Your task to perform on an android device: visit the assistant section in the google photos Image 0: 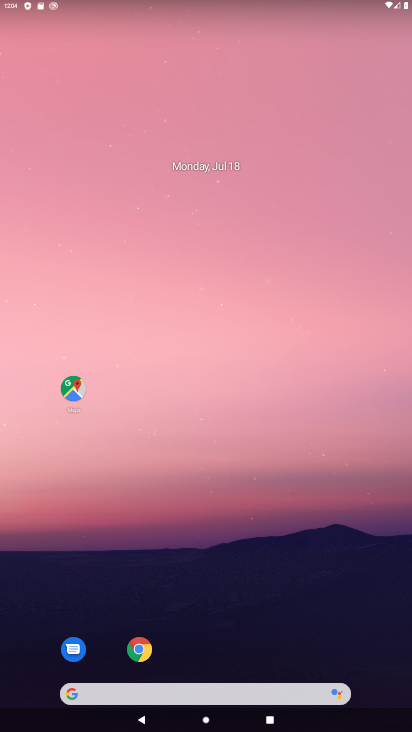
Step 0: drag from (195, 503) to (197, 39)
Your task to perform on an android device: visit the assistant section in the google photos Image 1: 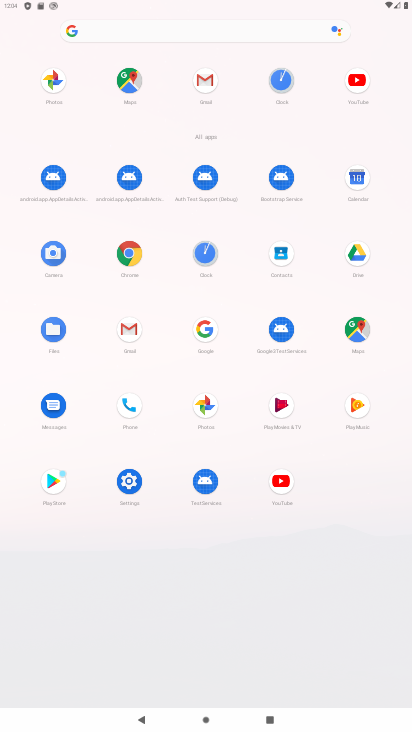
Step 1: click (212, 413)
Your task to perform on an android device: visit the assistant section in the google photos Image 2: 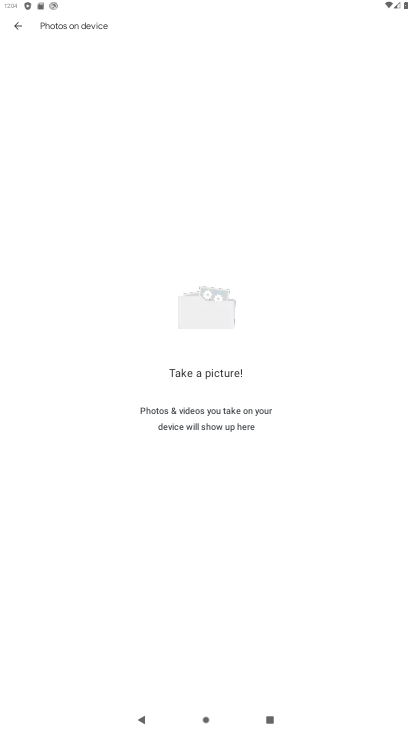
Step 2: click (22, 28)
Your task to perform on an android device: visit the assistant section in the google photos Image 3: 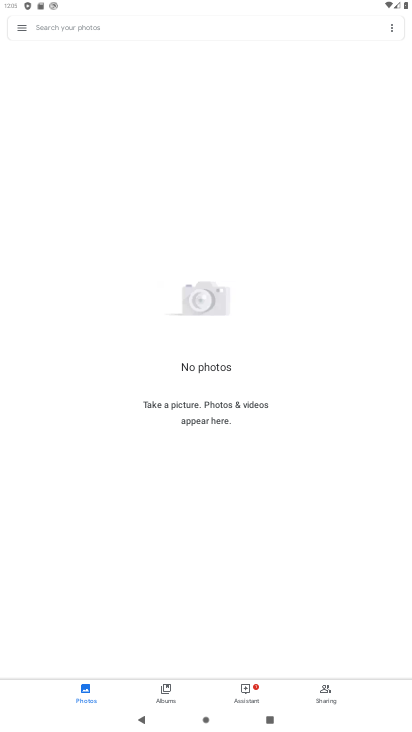
Step 3: click (243, 698)
Your task to perform on an android device: visit the assistant section in the google photos Image 4: 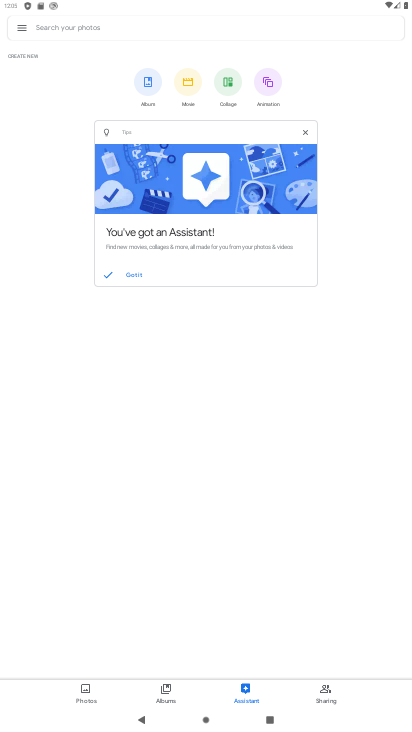
Step 4: task complete